Your task to perform on an android device: install app "Pandora - Music & Podcasts" Image 0: 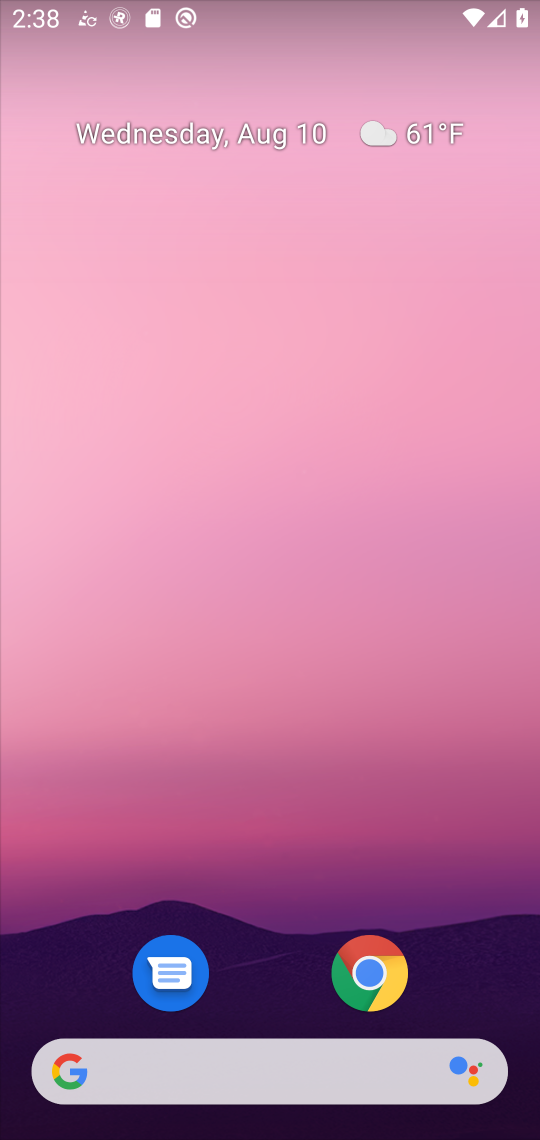
Step 0: drag from (240, 936) to (235, 258)
Your task to perform on an android device: install app "Pandora - Music & Podcasts" Image 1: 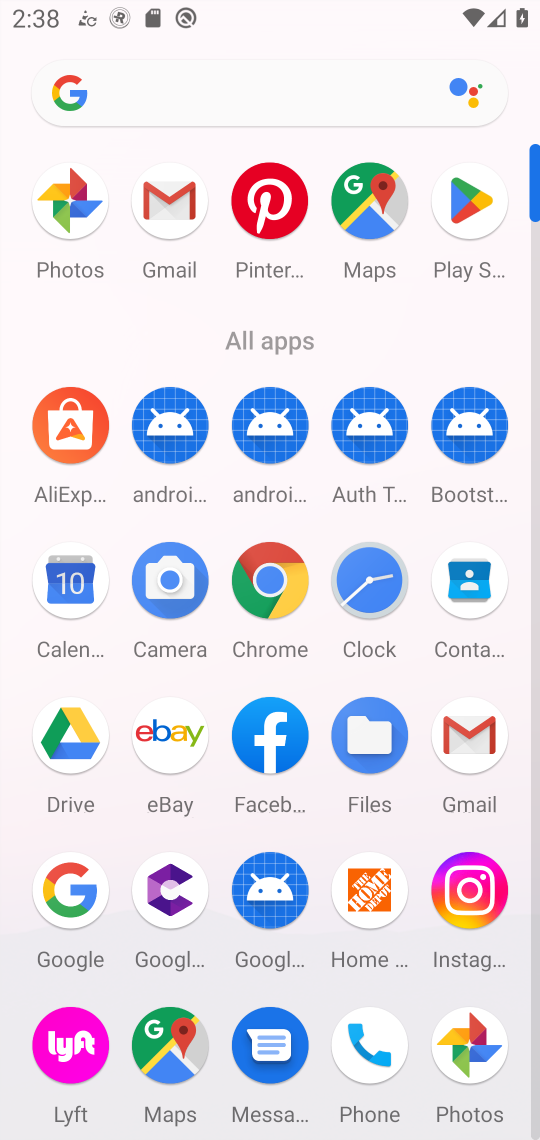
Step 1: click (479, 199)
Your task to perform on an android device: install app "Pandora - Music & Podcasts" Image 2: 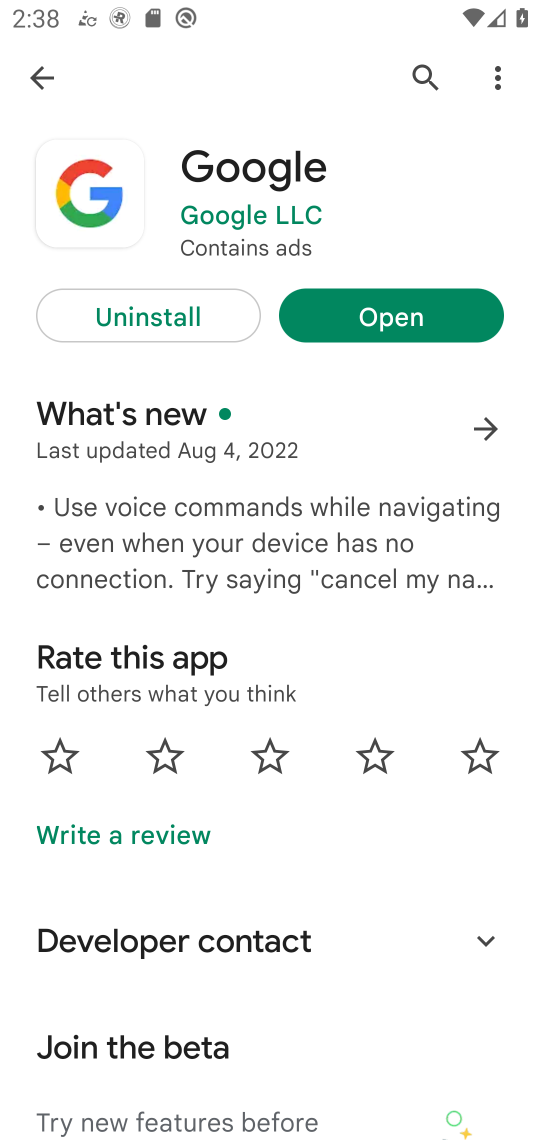
Step 2: click (44, 69)
Your task to perform on an android device: install app "Pandora - Music & Podcasts" Image 3: 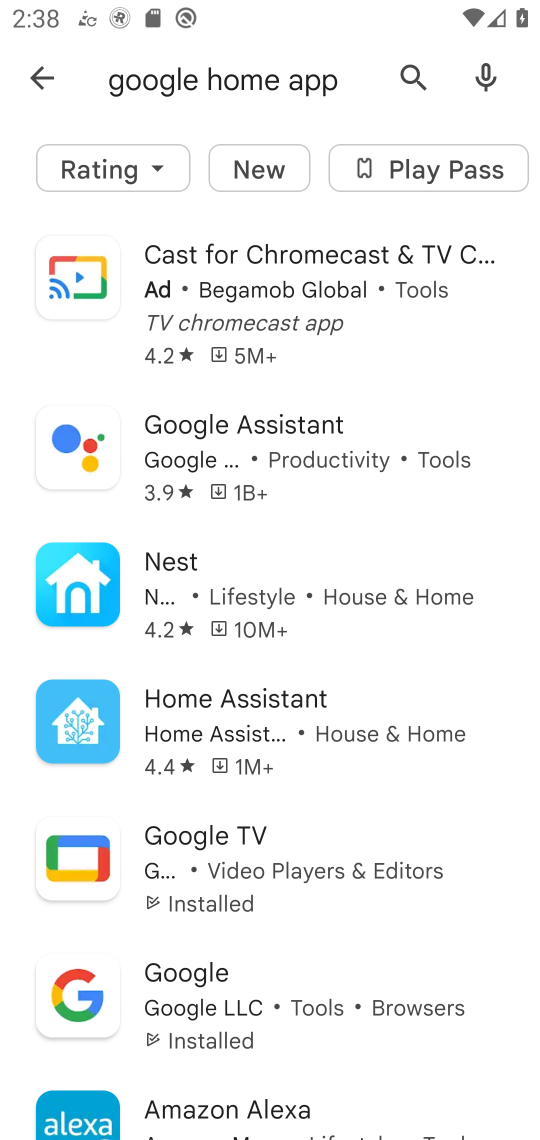
Step 3: click (44, 57)
Your task to perform on an android device: install app "Pandora - Music & Podcasts" Image 4: 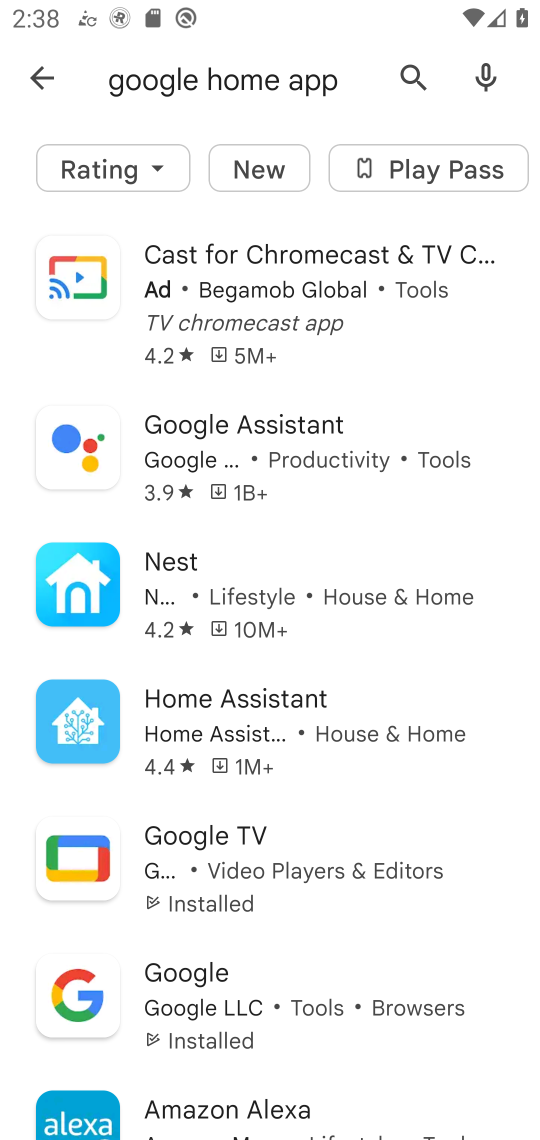
Step 4: click (45, 72)
Your task to perform on an android device: install app "Pandora - Music & Podcasts" Image 5: 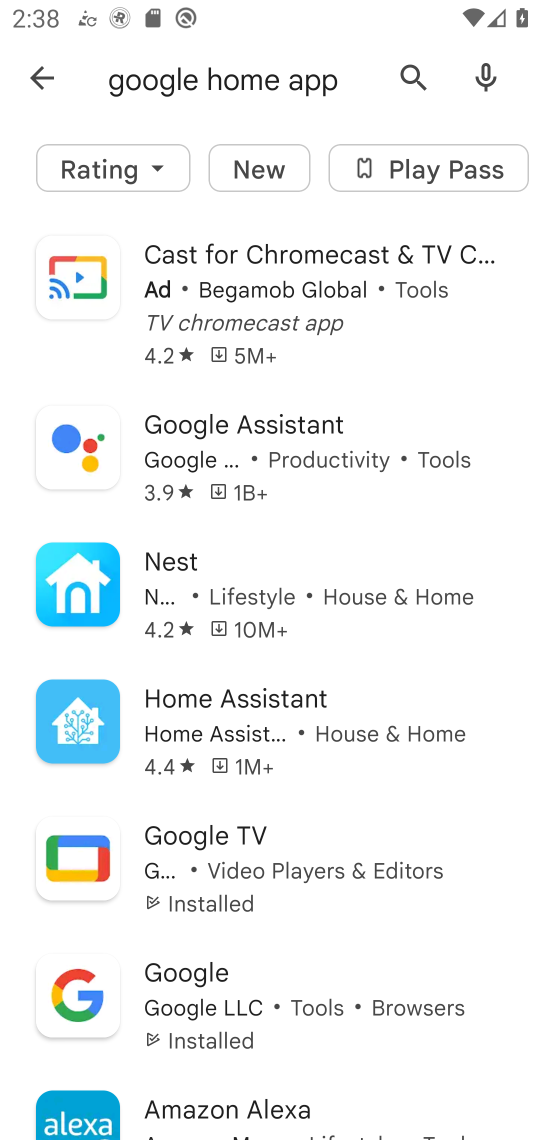
Step 5: click (392, 71)
Your task to perform on an android device: install app "Pandora - Music & Podcasts" Image 6: 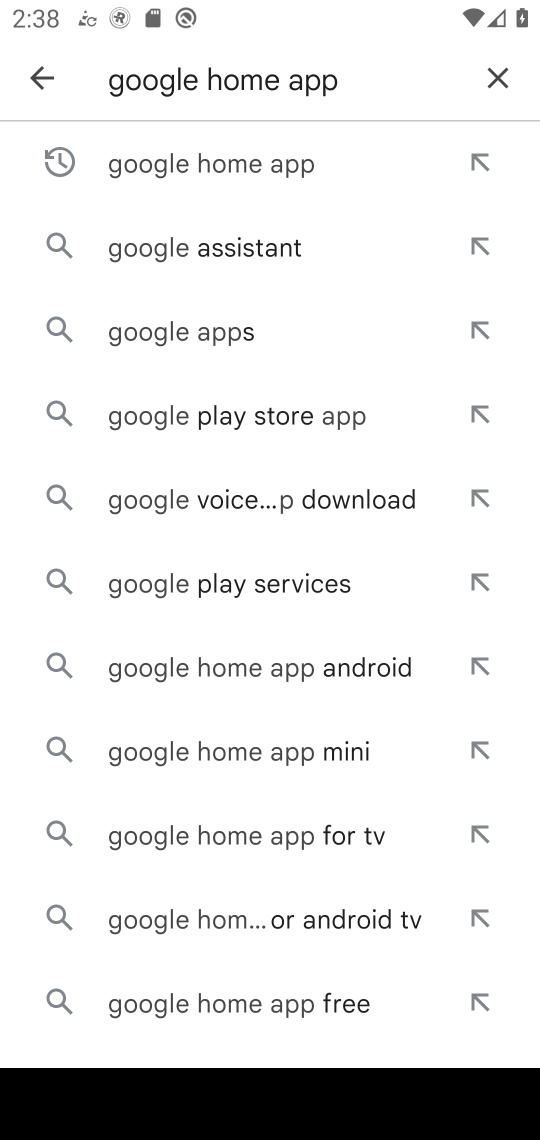
Step 6: click (510, 62)
Your task to perform on an android device: install app "Pandora - Music & Podcasts" Image 7: 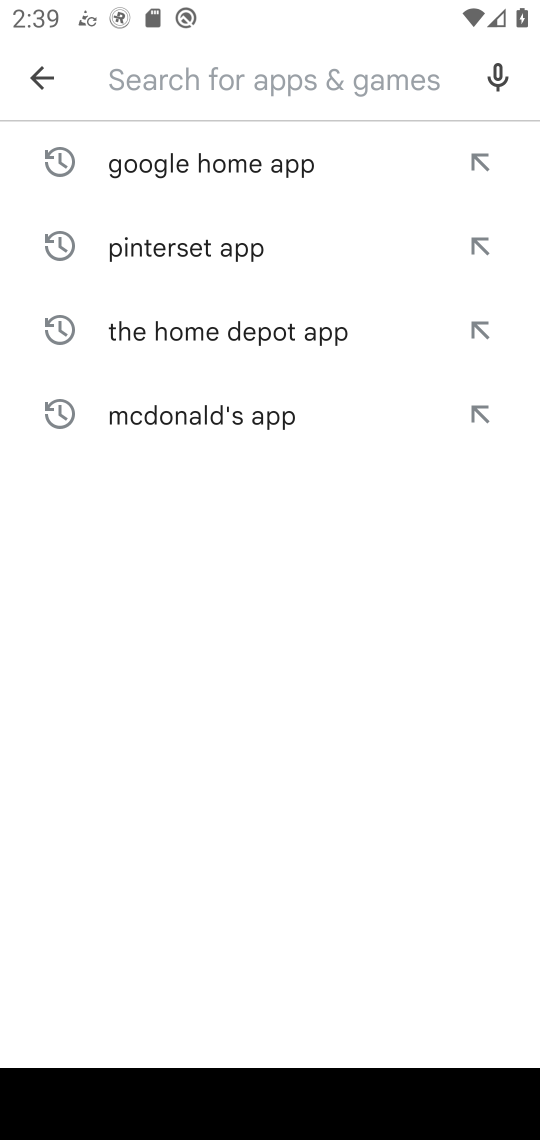
Step 7: click (232, 83)
Your task to perform on an android device: install app "Pandora - Music & Podcasts" Image 8: 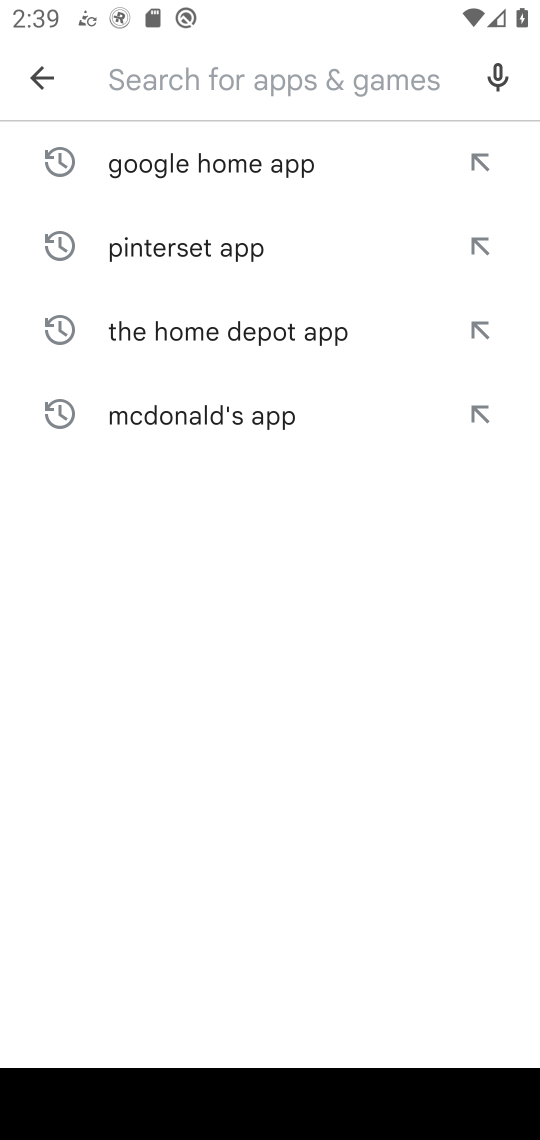
Step 8: type "Pandora - Music & Podcasts "
Your task to perform on an android device: install app "Pandora - Music & Podcasts" Image 9: 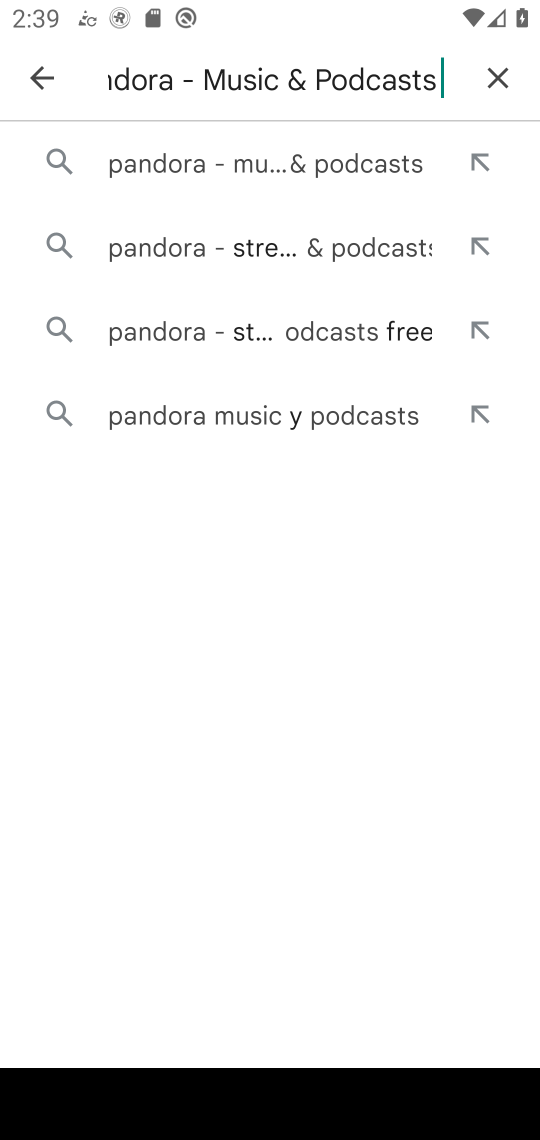
Step 9: click (231, 164)
Your task to perform on an android device: install app "Pandora - Music & Podcasts" Image 10: 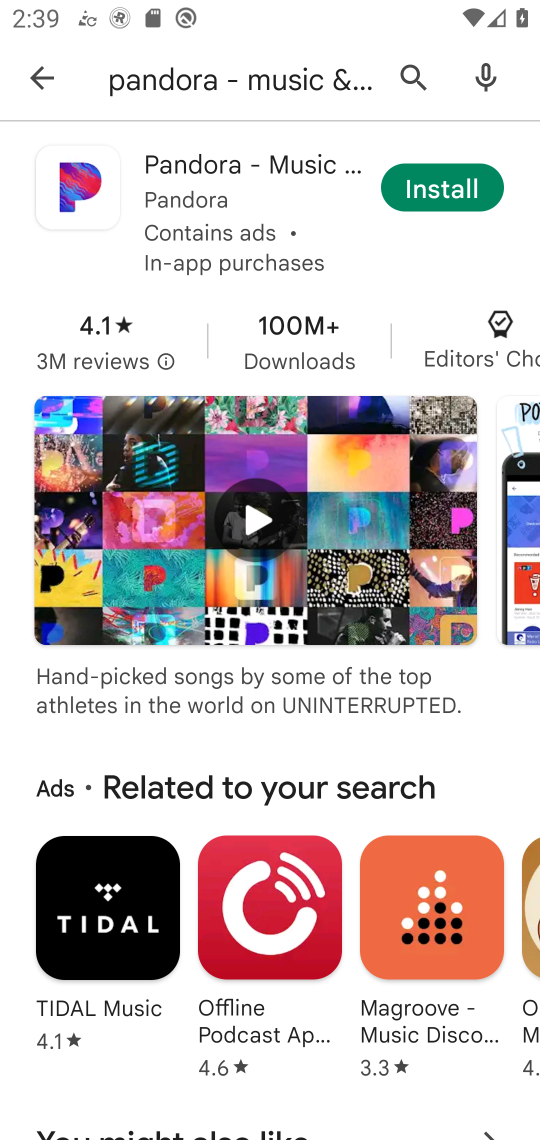
Step 10: click (437, 183)
Your task to perform on an android device: install app "Pandora - Music & Podcasts" Image 11: 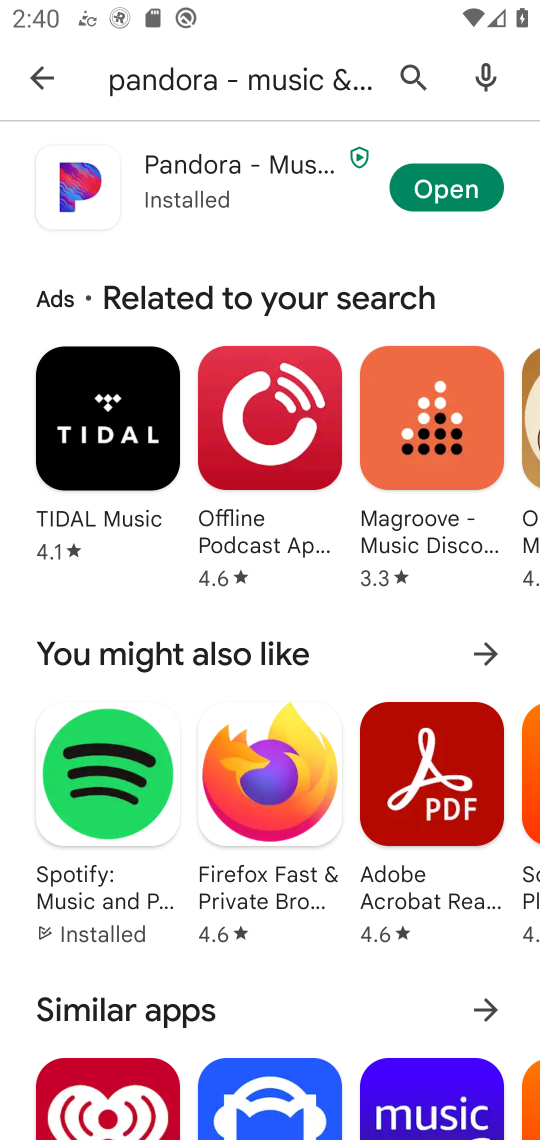
Step 11: task complete